Your task to perform on an android device: add a label to a message in the gmail app Image 0: 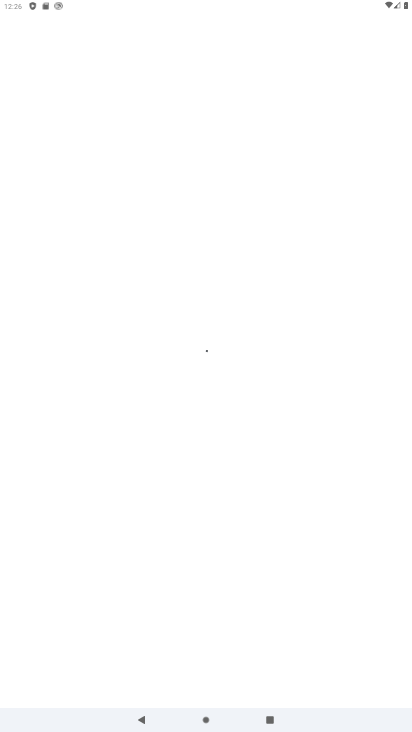
Step 0: press home button
Your task to perform on an android device: add a label to a message in the gmail app Image 1: 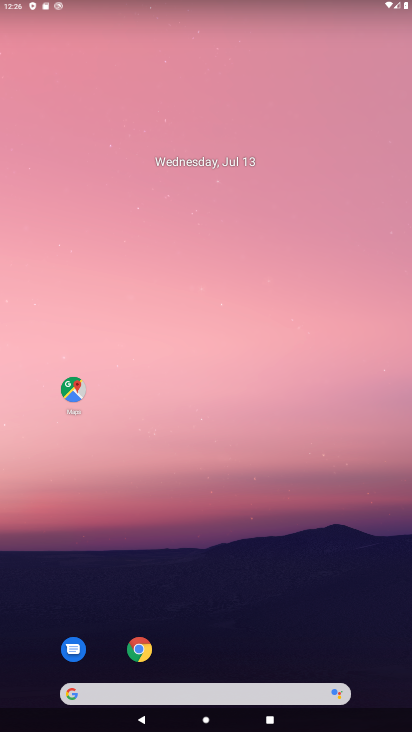
Step 1: drag from (260, 542) to (350, 110)
Your task to perform on an android device: add a label to a message in the gmail app Image 2: 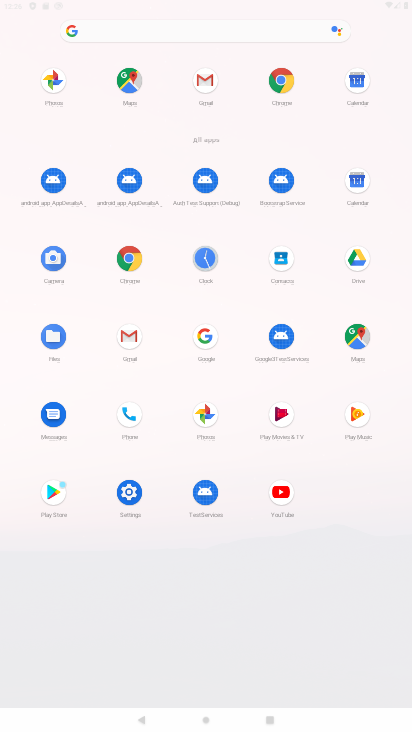
Step 2: click (130, 334)
Your task to perform on an android device: add a label to a message in the gmail app Image 3: 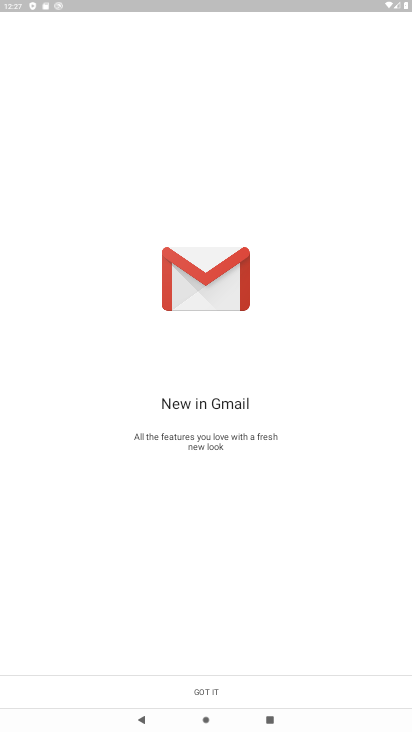
Step 3: click (244, 686)
Your task to perform on an android device: add a label to a message in the gmail app Image 4: 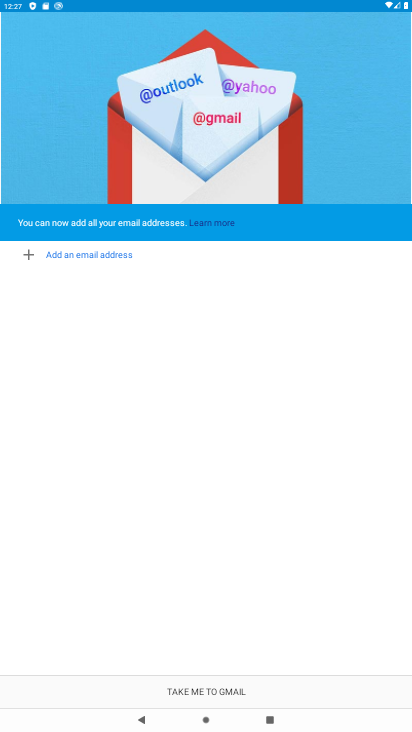
Step 4: click (244, 686)
Your task to perform on an android device: add a label to a message in the gmail app Image 5: 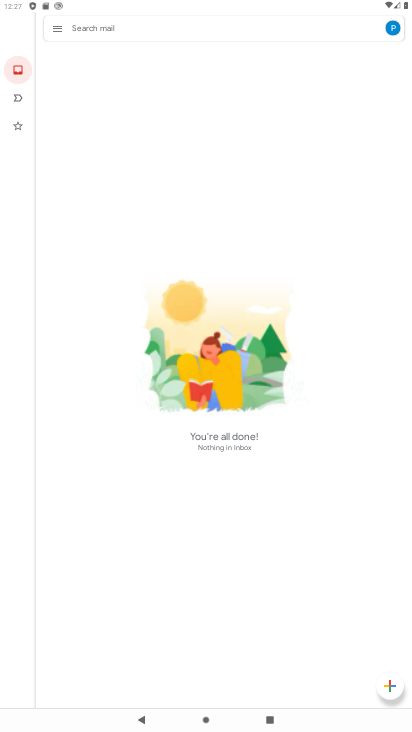
Step 5: task complete